Your task to perform on an android device: Open Chrome and go to settings Image 0: 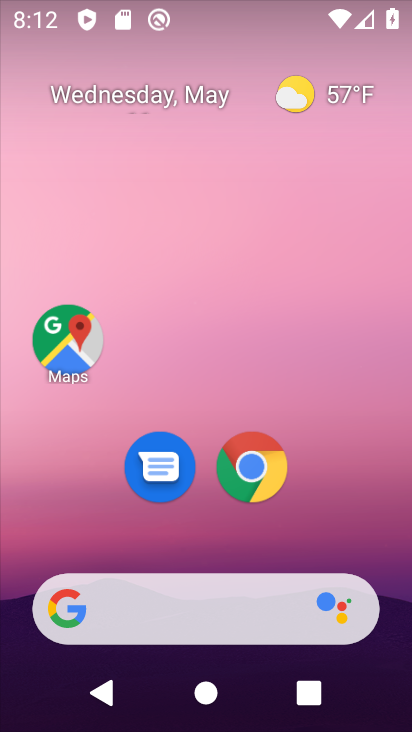
Step 0: drag from (348, 582) to (79, 116)
Your task to perform on an android device: Open Chrome and go to settings Image 1: 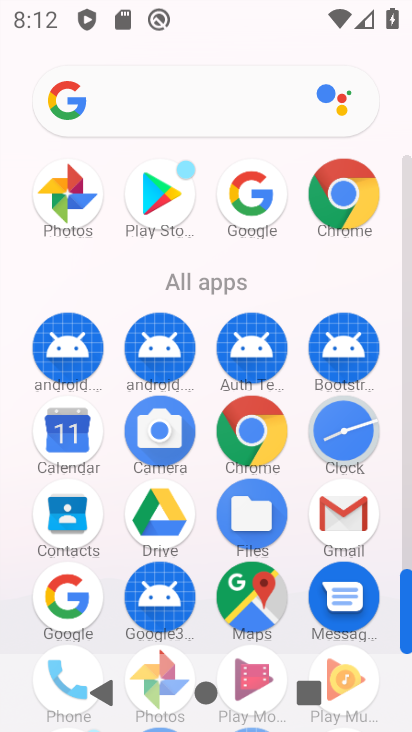
Step 1: click (239, 413)
Your task to perform on an android device: Open Chrome and go to settings Image 2: 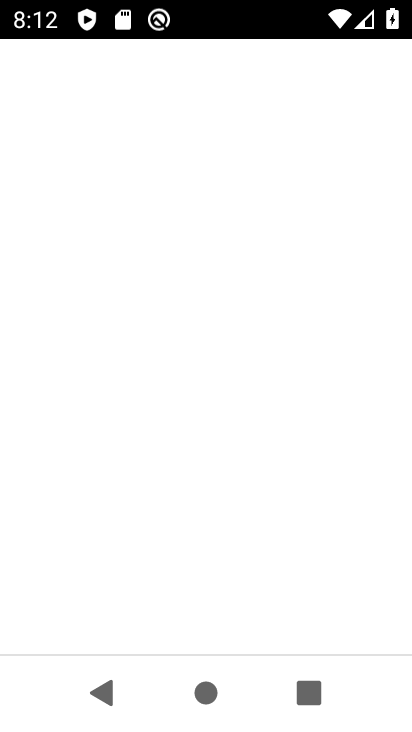
Step 2: drag from (320, 427) to (309, 66)
Your task to perform on an android device: Open Chrome and go to settings Image 3: 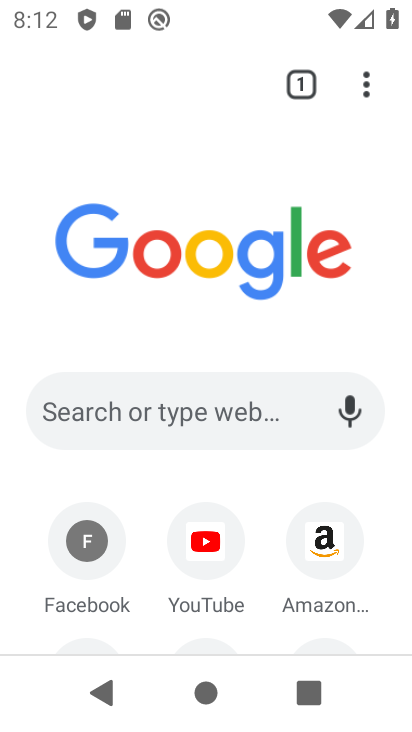
Step 3: press back button
Your task to perform on an android device: Open Chrome and go to settings Image 4: 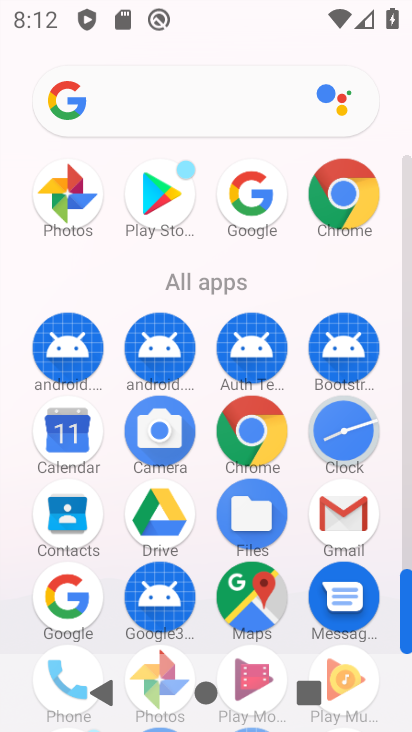
Step 4: drag from (296, 475) to (254, 11)
Your task to perform on an android device: Open Chrome and go to settings Image 5: 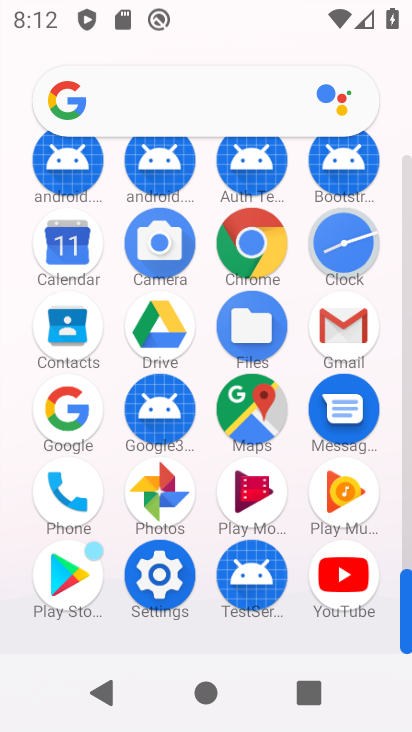
Step 5: drag from (308, 446) to (249, 37)
Your task to perform on an android device: Open Chrome and go to settings Image 6: 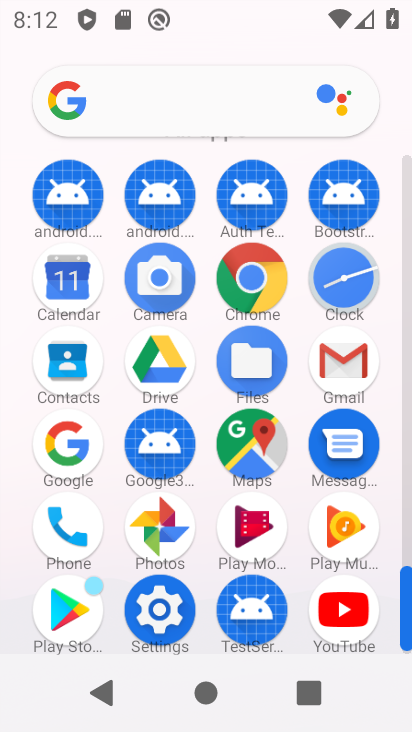
Step 6: click (160, 605)
Your task to perform on an android device: Open Chrome and go to settings Image 7: 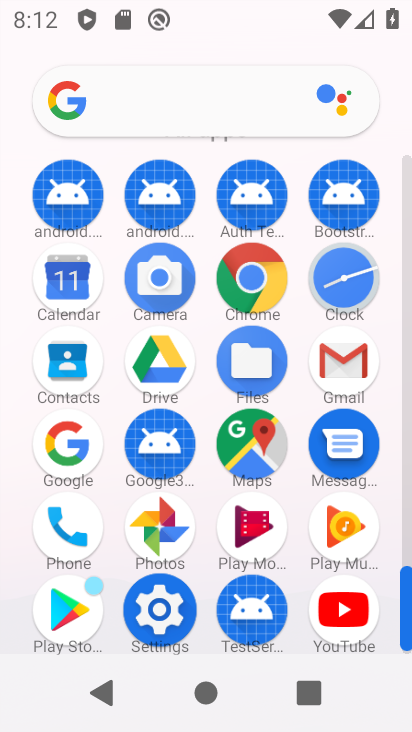
Step 7: click (160, 605)
Your task to perform on an android device: Open Chrome and go to settings Image 8: 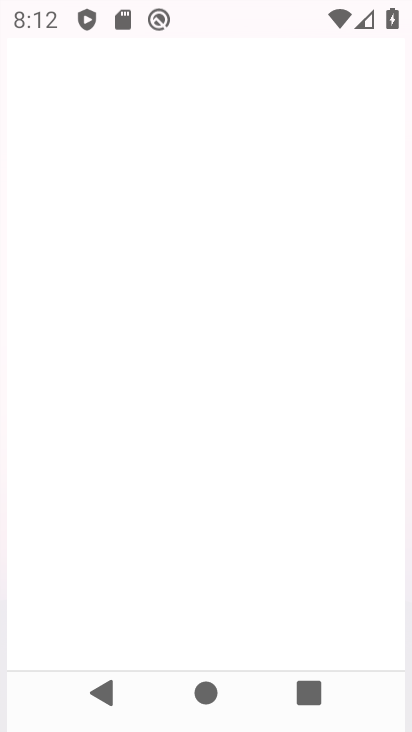
Step 8: click (161, 603)
Your task to perform on an android device: Open Chrome and go to settings Image 9: 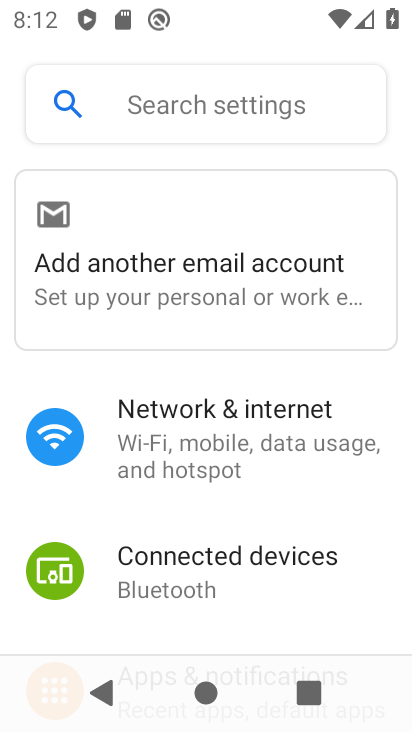
Step 9: drag from (151, 453) to (130, 97)
Your task to perform on an android device: Open Chrome and go to settings Image 10: 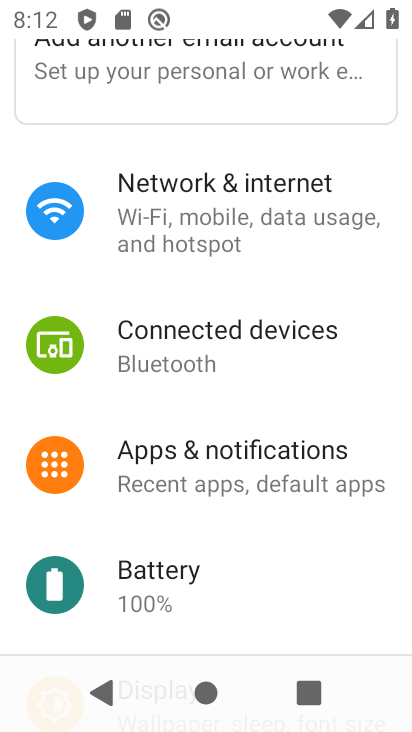
Step 10: drag from (189, 463) to (29, 17)
Your task to perform on an android device: Open Chrome and go to settings Image 11: 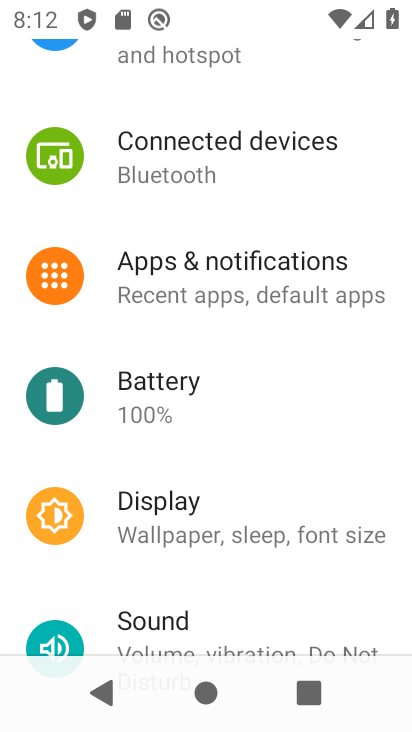
Step 11: drag from (138, 28) to (184, 17)
Your task to perform on an android device: Open Chrome and go to settings Image 12: 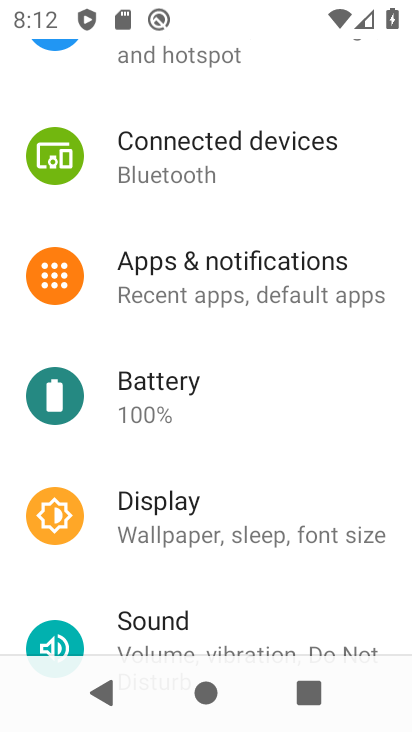
Step 12: press back button
Your task to perform on an android device: Open Chrome and go to settings Image 13: 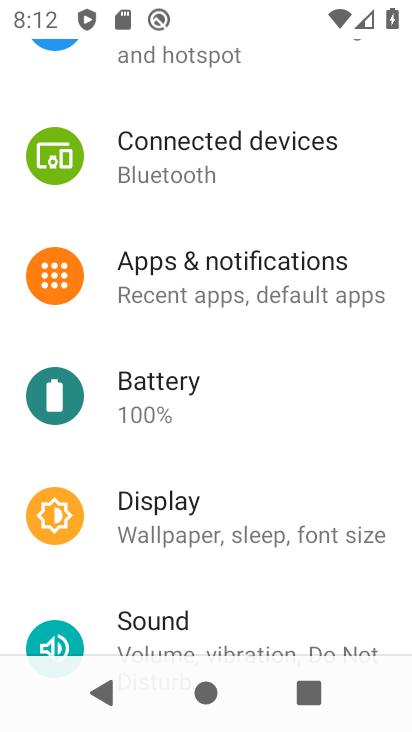
Step 13: press back button
Your task to perform on an android device: Open Chrome and go to settings Image 14: 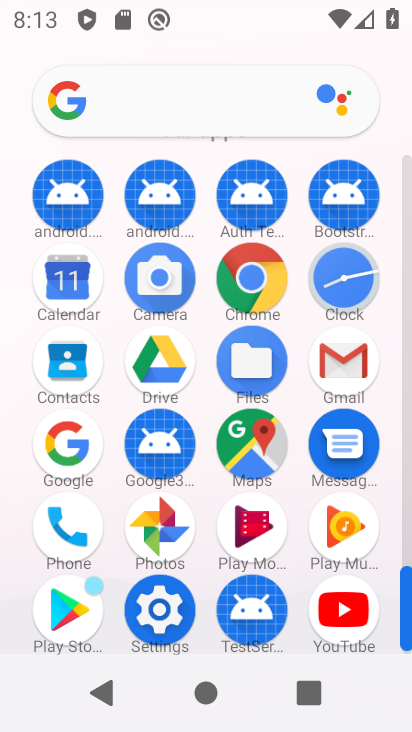
Step 14: press back button
Your task to perform on an android device: Open Chrome and go to settings Image 15: 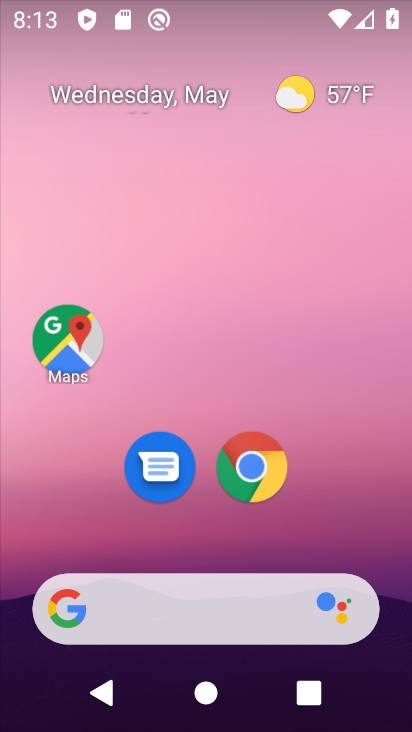
Step 15: drag from (326, 539) to (137, 0)
Your task to perform on an android device: Open Chrome and go to settings Image 16: 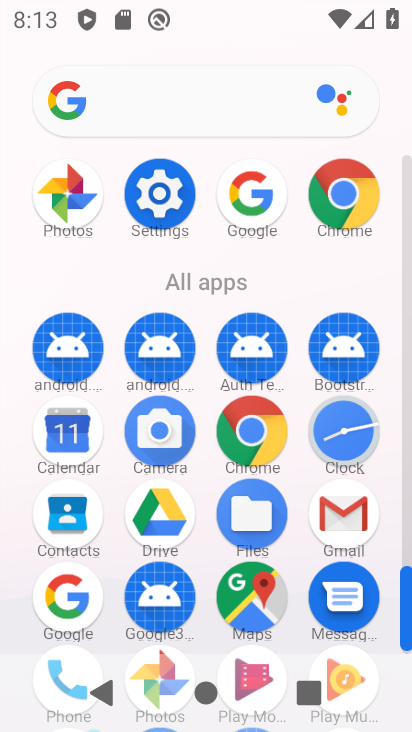
Step 16: click (352, 202)
Your task to perform on an android device: Open Chrome and go to settings Image 17: 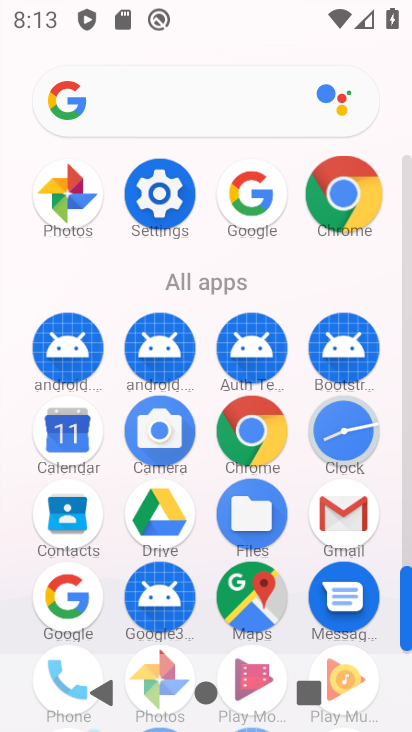
Step 17: click (352, 202)
Your task to perform on an android device: Open Chrome and go to settings Image 18: 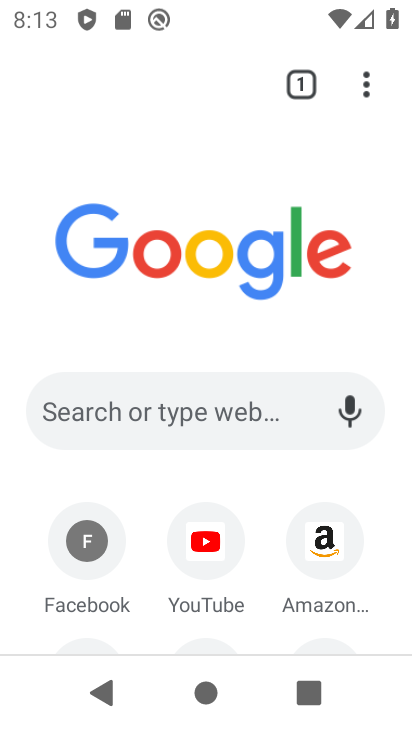
Step 18: drag from (365, 87) to (96, 522)
Your task to perform on an android device: Open Chrome and go to settings Image 19: 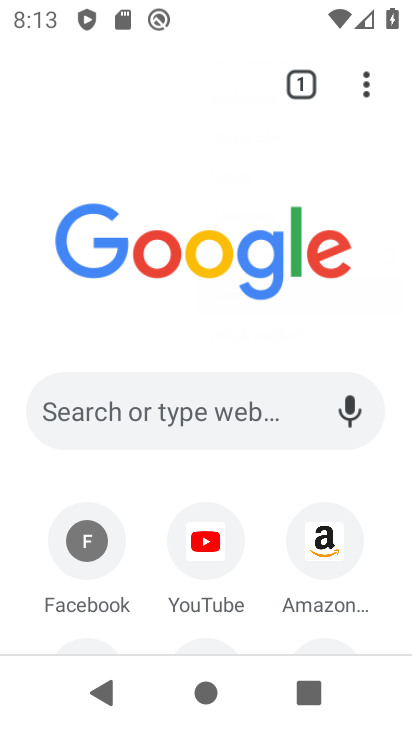
Step 19: click (95, 521)
Your task to perform on an android device: Open Chrome and go to settings Image 20: 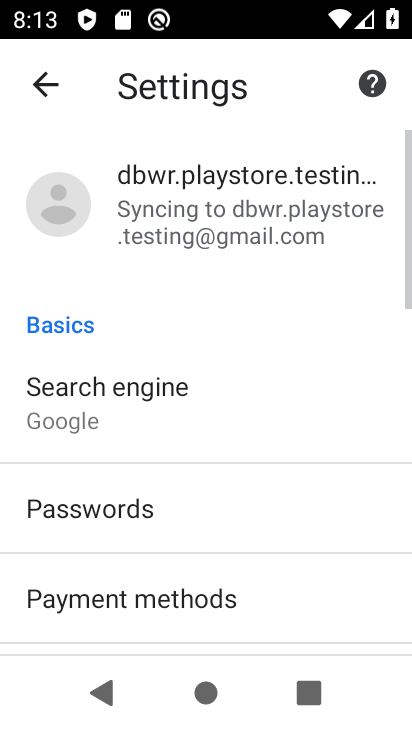
Step 20: task complete